Your task to perform on an android device: turn on showing notifications on the lock screen Image 0: 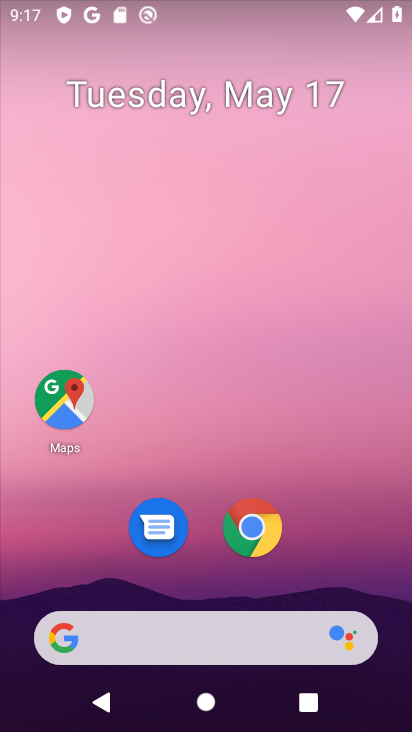
Step 0: drag from (207, 444) to (236, 70)
Your task to perform on an android device: turn on showing notifications on the lock screen Image 1: 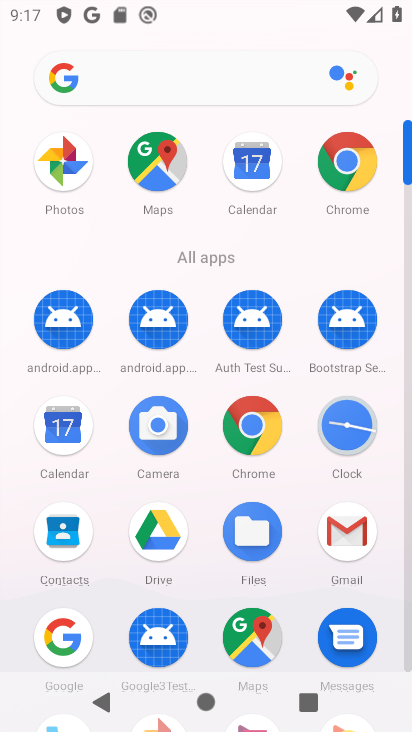
Step 1: drag from (205, 565) to (250, 140)
Your task to perform on an android device: turn on showing notifications on the lock screen Image 2: 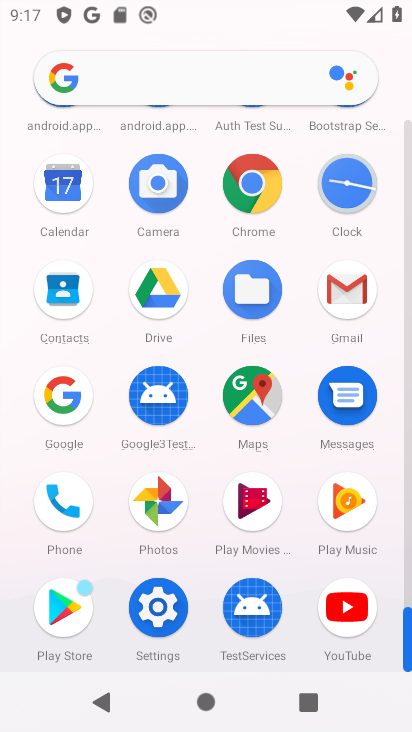
Step 2: click (160, 619)
Your task to perform on an android device: turn on showing notifications on the lock screen Image 3: 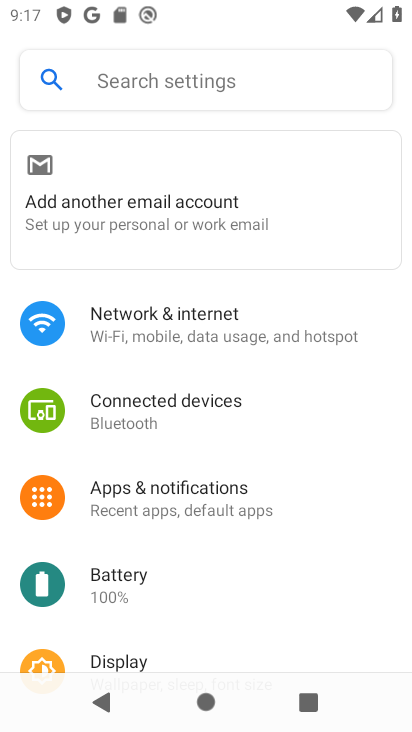
Step 3: click (205, 489)
Your task to perform on an android device: turn on showing notifications on the lock screen Image 4: 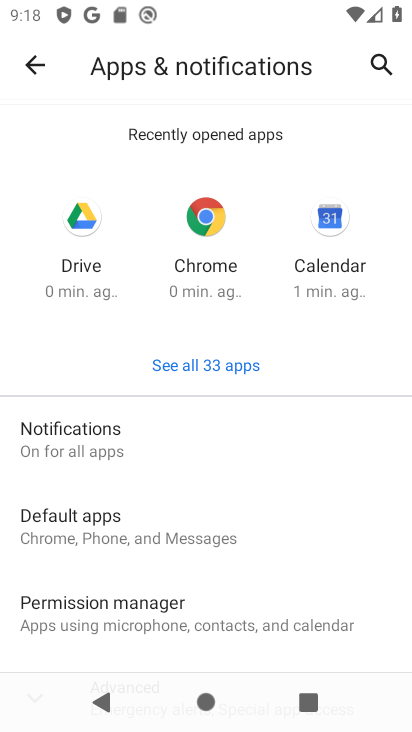
Step 4: click (160, 453)
Your task to perform on an android device: turn on showing notifications on the lock screen Image 5: 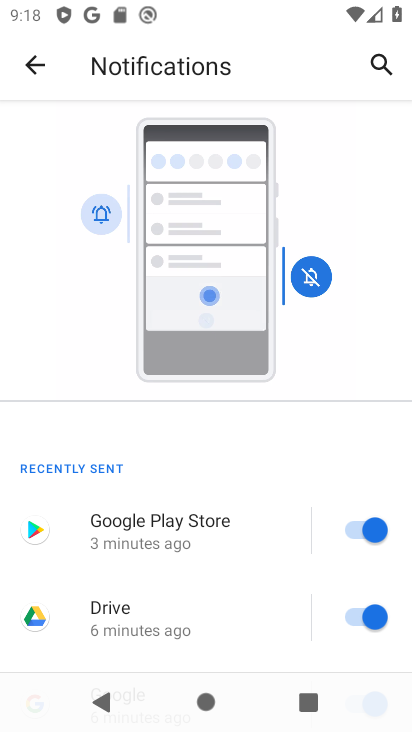
Step 5: drag from (202, 504) to (261, 143)
Your task to perform on an android device: turn on showing notifications on the lock screen Image 6: 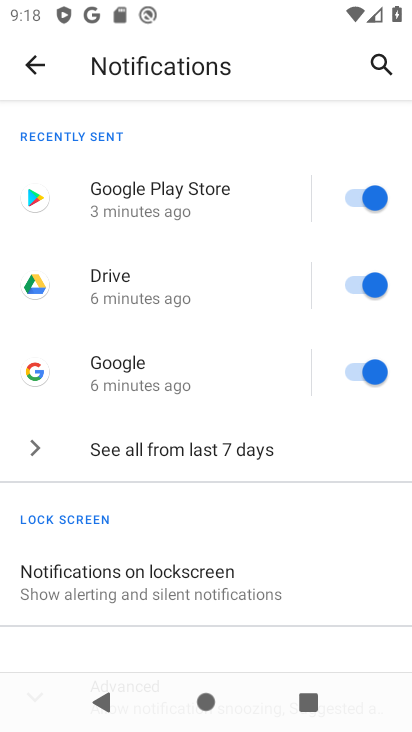
Step 6: click (164, 580)
Your task to perform on an android device: turn on showing notifications on the lock screen Image 7: 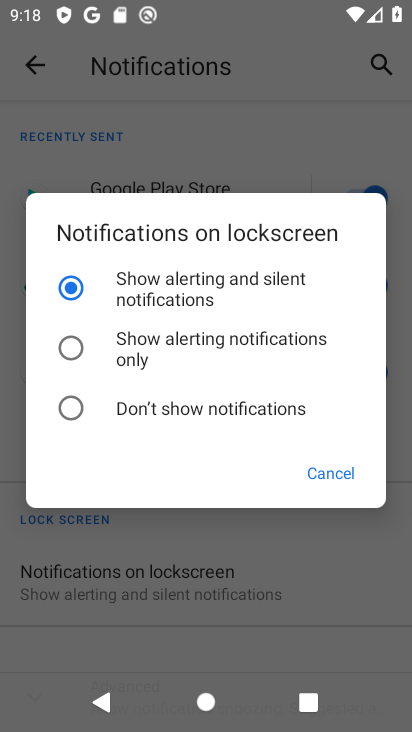
Step 7: task complete